Your task to perform on an android device: Open privacy settings Image 0: 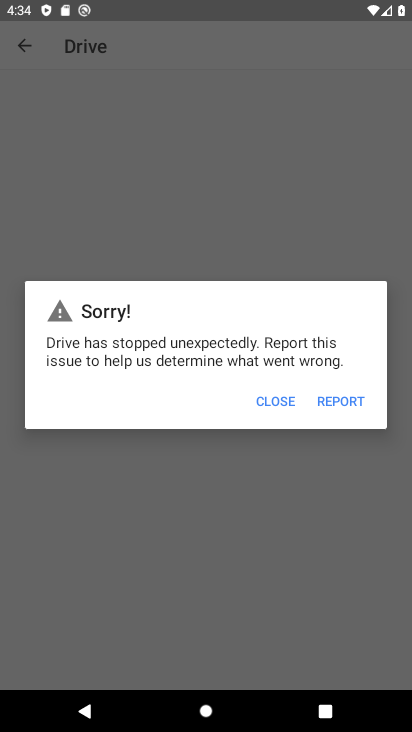
Step 0: press home button
Your task to perform on an android device: Open privacy settings Image 1: 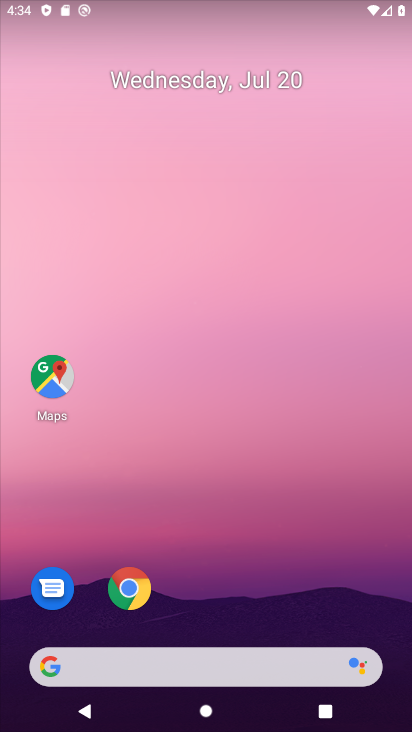
Step 1: drag from (291, 600) to (209, 152)
Your task to perform on an android device: Open privacy settings Image 2: 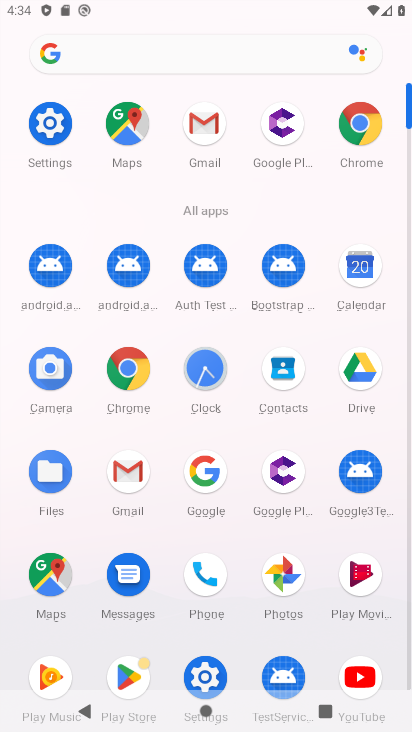
Step 2: click (48, 125)
Your task to perform on an android device: Open privacy settings Image 3: 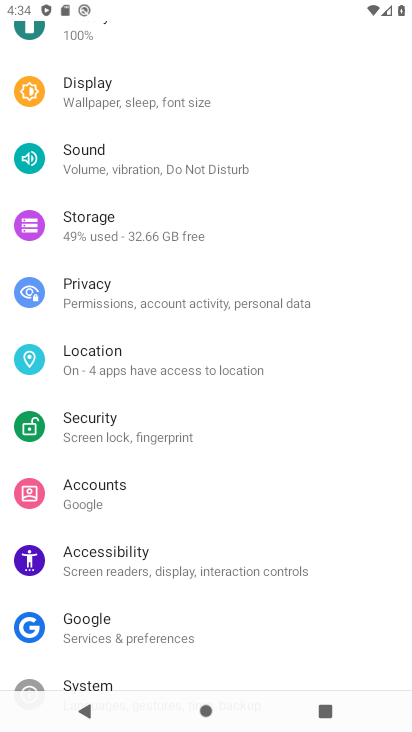
Step 3: click (156, 295)
Your task to perform on an android device: Open privacy settings Image 4: 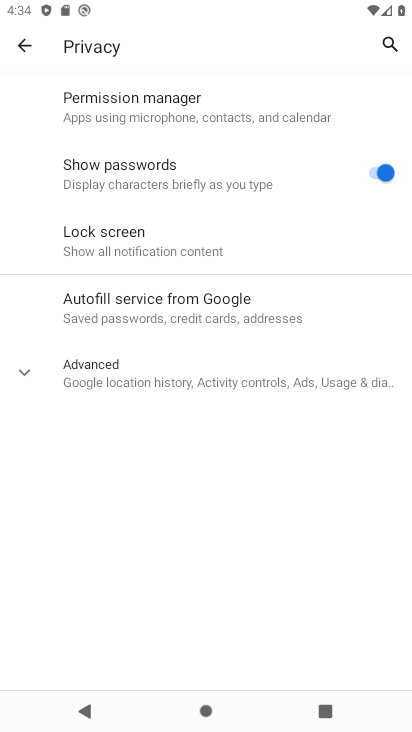
Step 4: task complete